Your task to perform on an android device: Open Google Chrome and open the bookmarks view Image 0: 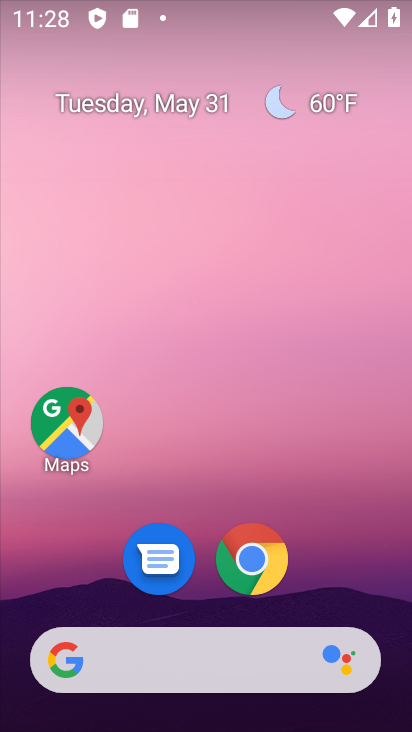
Step 0: drag from (361, 557) to (221, 100)
Your task to perform on an android device: Open Google Chrome and open the bookmarks view Image 1: 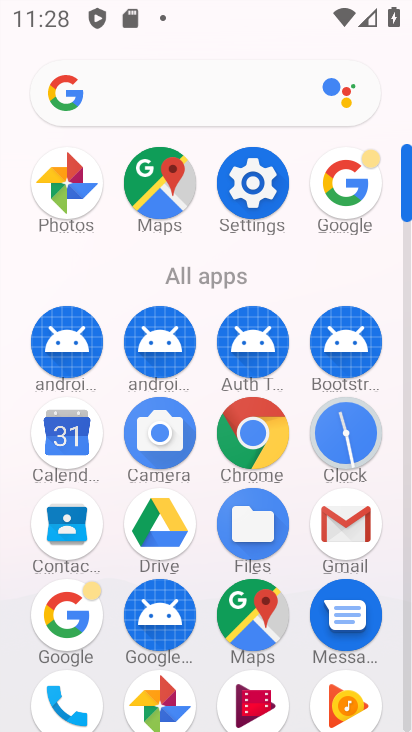
Step 1: click (250, 424)
Your task to perform on an android device: Open Google Chrome and open the bookmarks view Image 2: 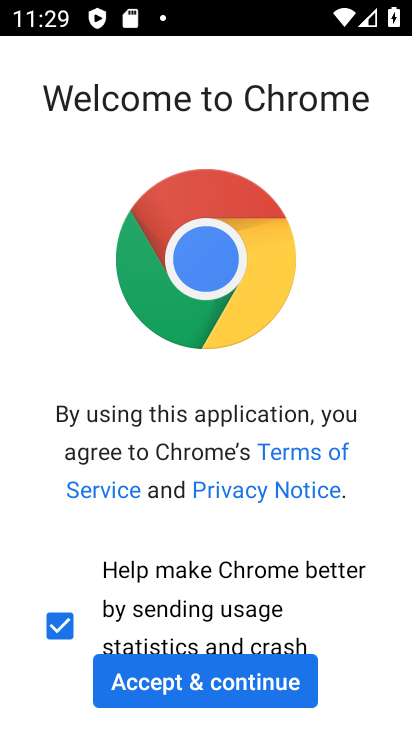
Step 2: click (149, 666)
Your task to perform on an android device: Open Google Chrome and open the bookmarks view Image 3: 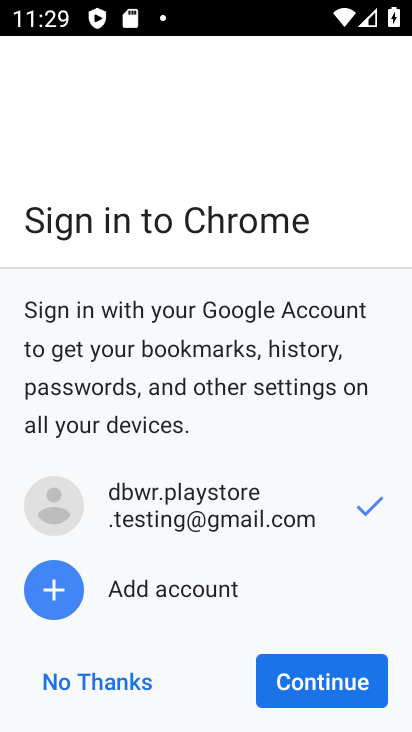
Step 3: click (319, 689)
Your task to perform on an android device: Open Google Chrome and open the bookmarks view Image 4: 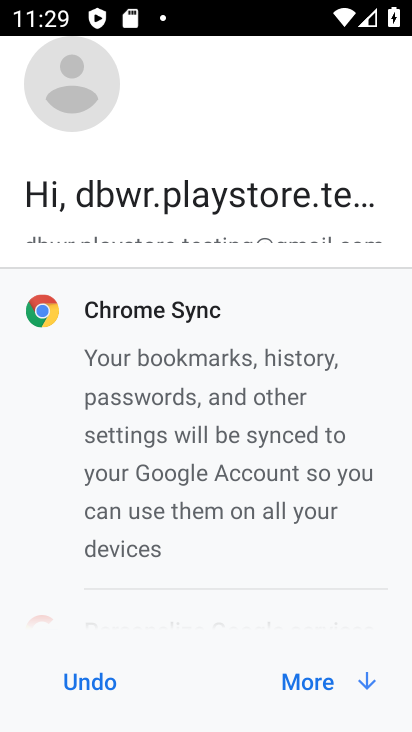
Step 4: click (314, 679)
Your task to perform on an android device: Open Google Chrome and open the bookmarks view Image 5: 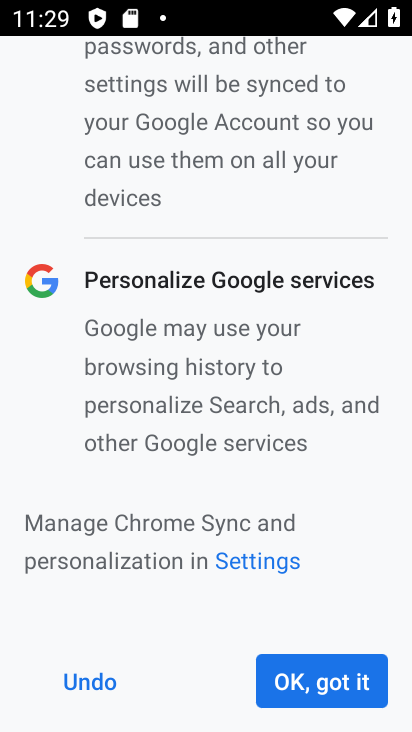
Step 5: click (314, 679)
Your task to perform on an android device: Open Google Chrome and open the bookmarks view Image 6: 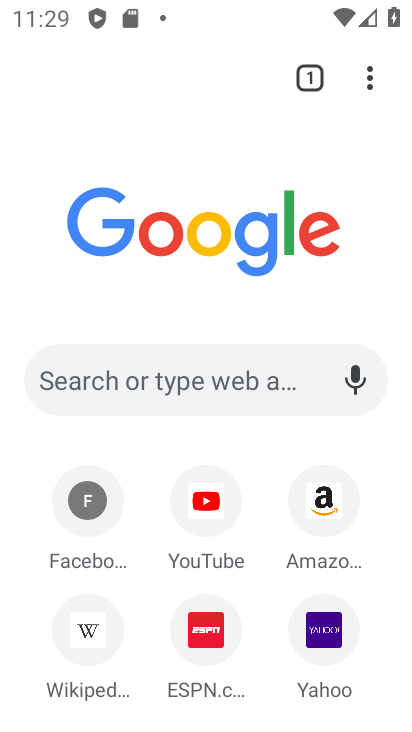
Step 6: click (369, 78)
Your task to perform on an android device: Open Google Chrome and open the bookmarks view Image 7: 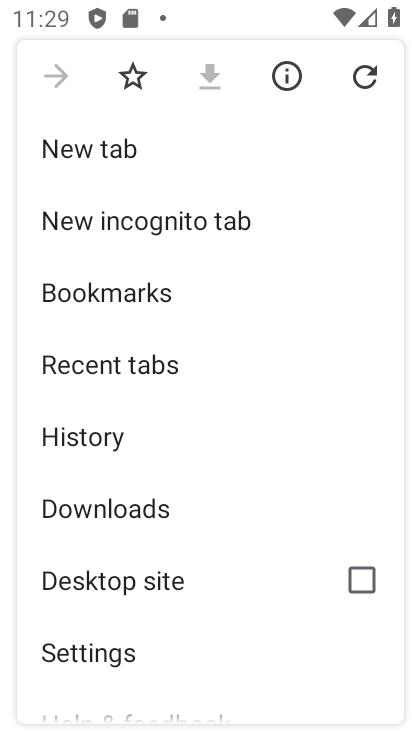
Step 7: click (154, 298)
Your task to perform on an android device: Open Google Chrome and open the bookmarks view Image 8: 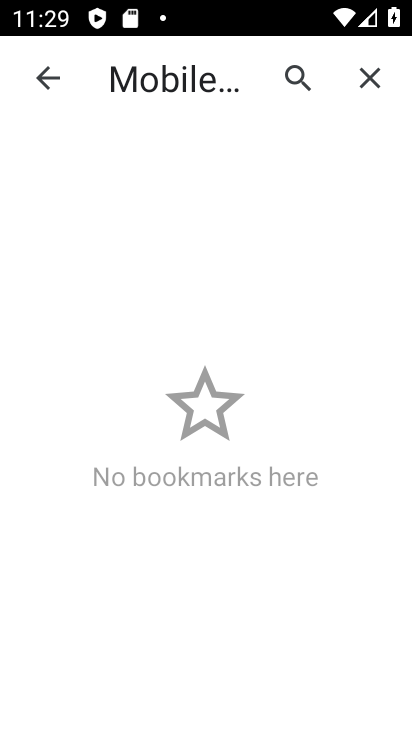
Step 8: task complete